Your task to perform on an android device: Turn on the flashlight Image 0: 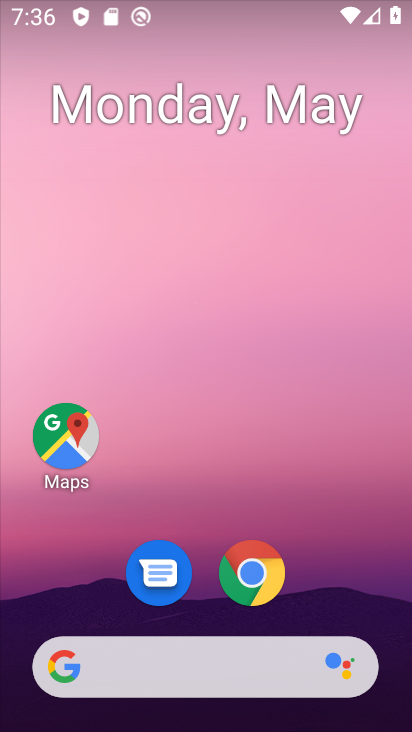
Step 0: drag from (383, 558) to (308, 0)
Your task to perform on an android device: Turn on the flashlight Image 1: 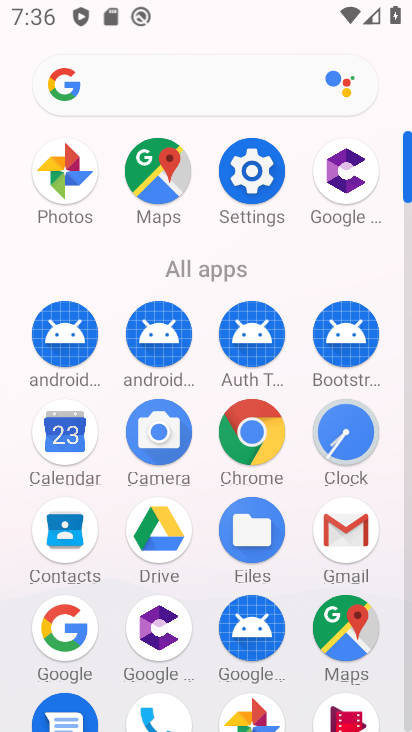
Step 1: click (280, 194)
Your task to perform on an android device: Turn on the flashlight Image 2: 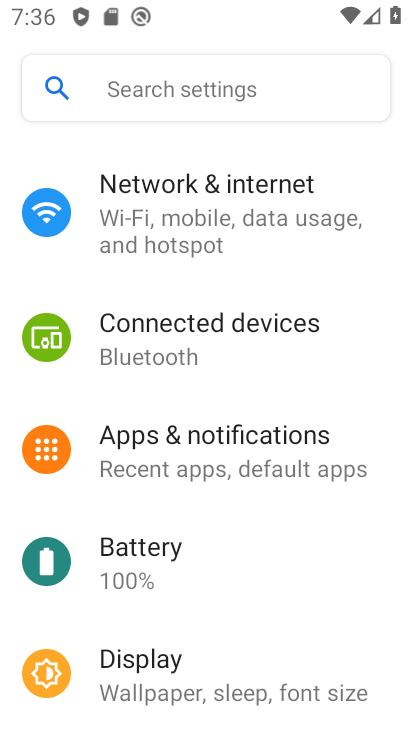
Step 2: task complete